Your task to perform on an android device: clear history in the chrome app Image 0: 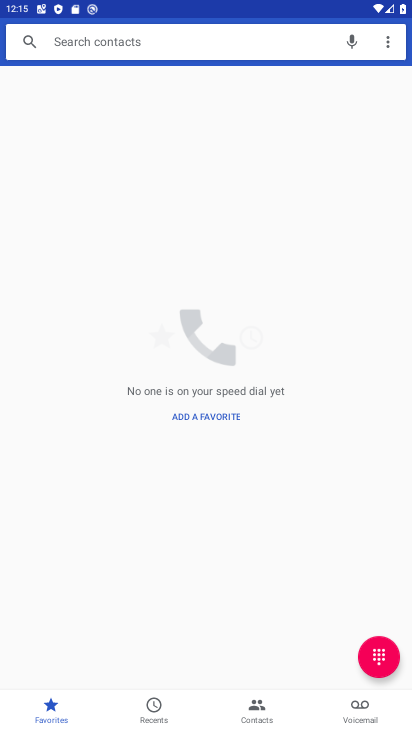
Step 0: press home button
Your task to perform on an android device: clear history in the chrome app Image 1: 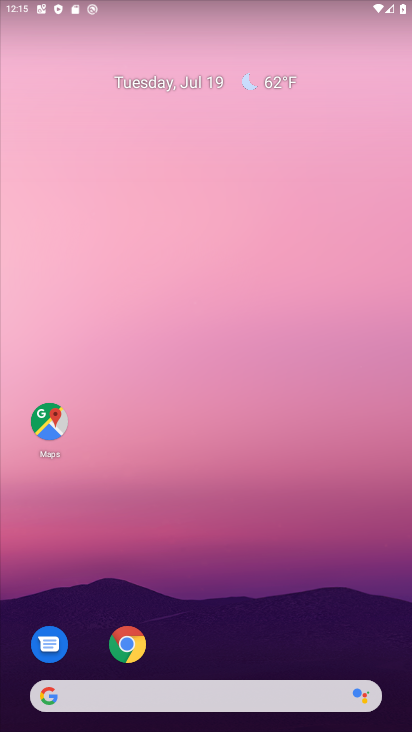
Step 1: click (127, 643)
Your task to perform on an android device: clear history in the chrome app Image 2: 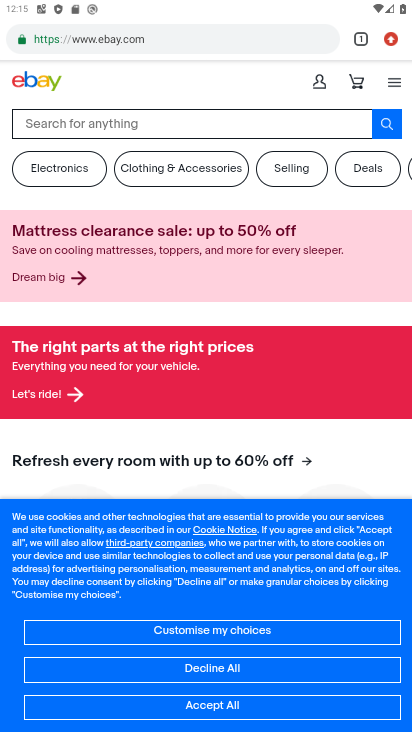
Step 2: click (388, 35)
Your task to perform on an android device: clear history in the chrome app Image 3: 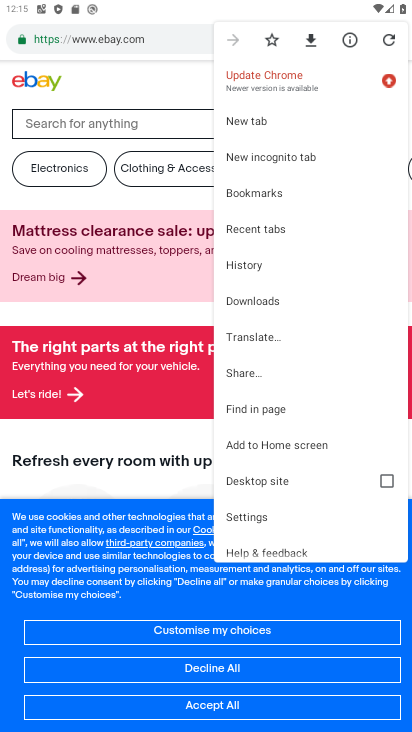
Step 3: click (254, 263)
Your task to perform on an android device: clear history in the chrome app Image 4: 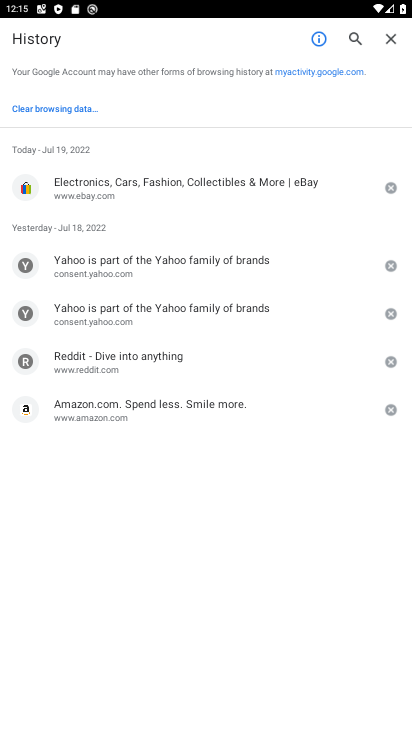
Step 4: click (59, 109)
Your task to perform on an android device: clear history in the chrome app Image 5: 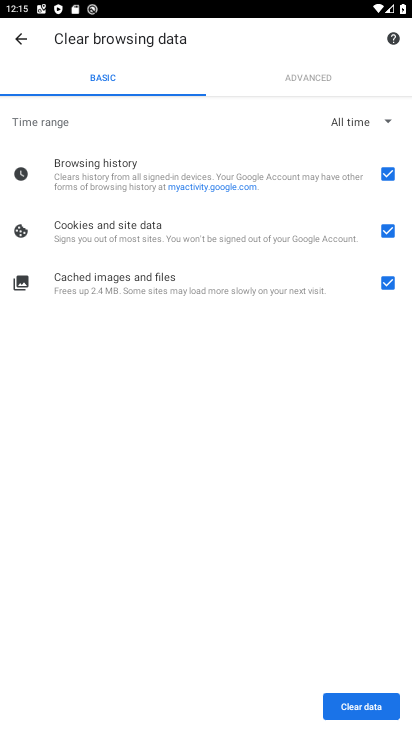
Step 5: click (385, 230)
Your task to perform on an android device: clear history in the chrome app Image 6: 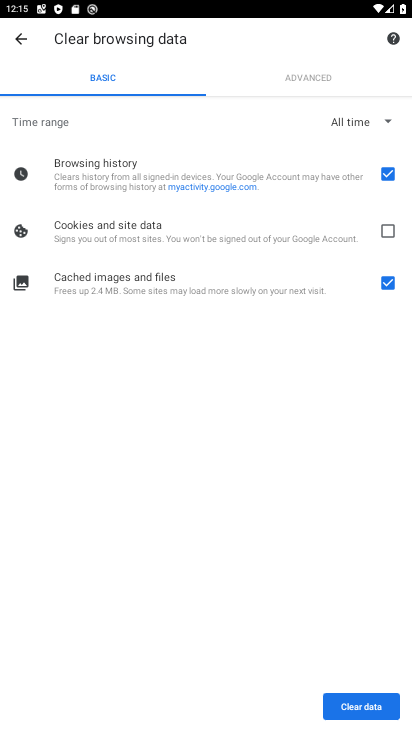
Step 6: click (386, 288)
Your task to perform on an android device: clear history in the chrome app Image 7: 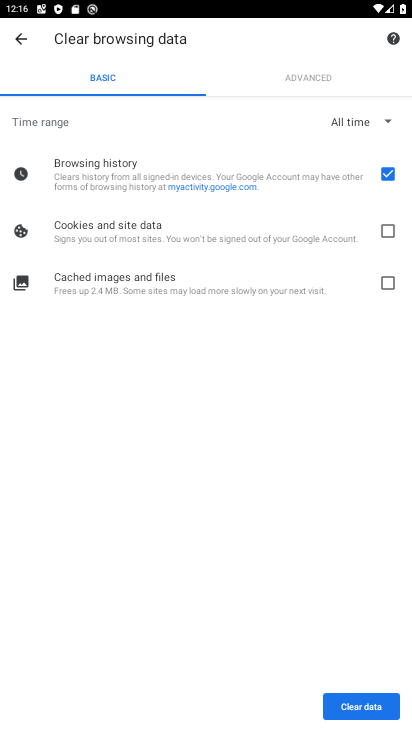
Step 7: click (361, 703)
Your task to perform on an android device: clear history in the chrome app Image 8: 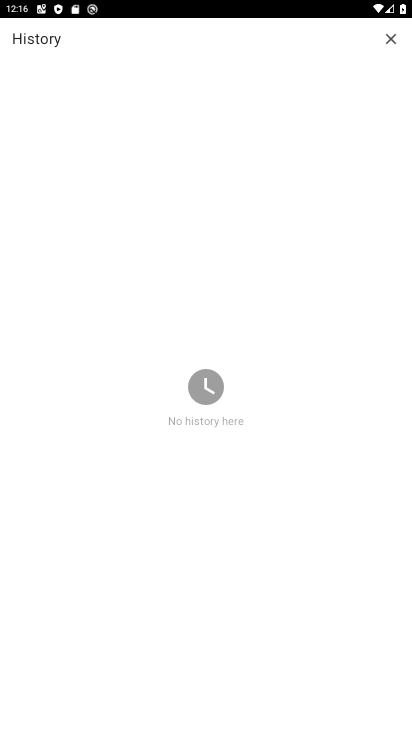
Step 8: task complete